Your task to perform on an android device: Open the phone app and click the voicemail tab. Image 0: 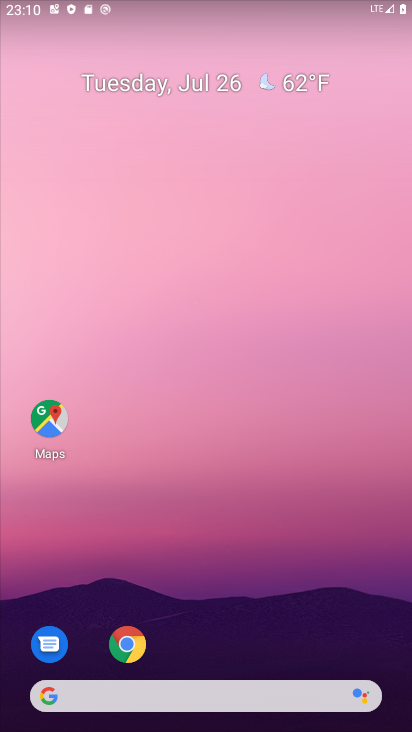
Step 0: drag from (269, 647) to (274, 15)
Your task to perform on an android device: Open the phone app and click the voicemail tab. Image 1: 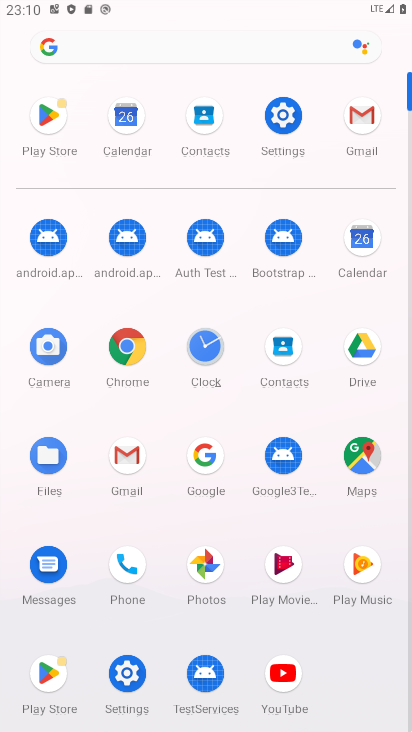
Step 1: click (120, 564)
Your task to perform on an android device: Open the phone app and click the voicemail tab. Image 2: 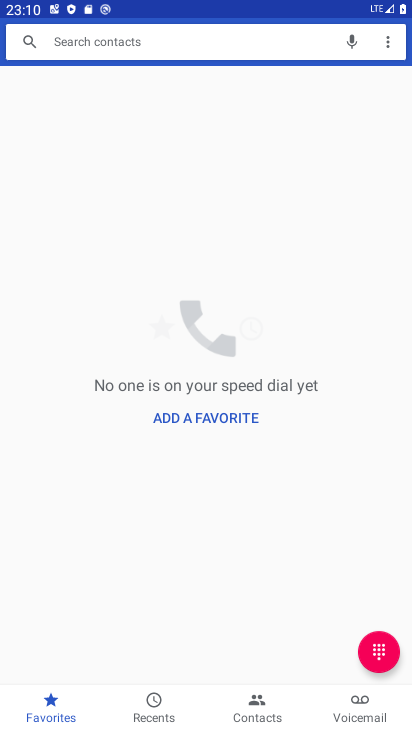
Step 2: click (359, 708)
Your task to perform on an android device: Open the phone app and click the voicemail tab. Image 3: 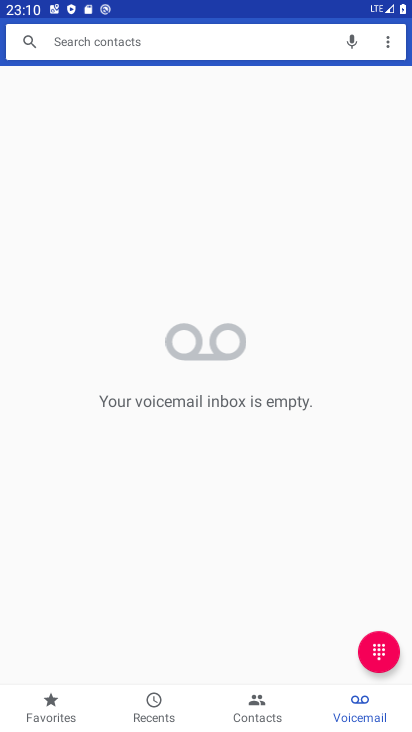
Step 3: task complete